Your task to perform on an android device: toggle notifications settings in the gmail app Image 0: 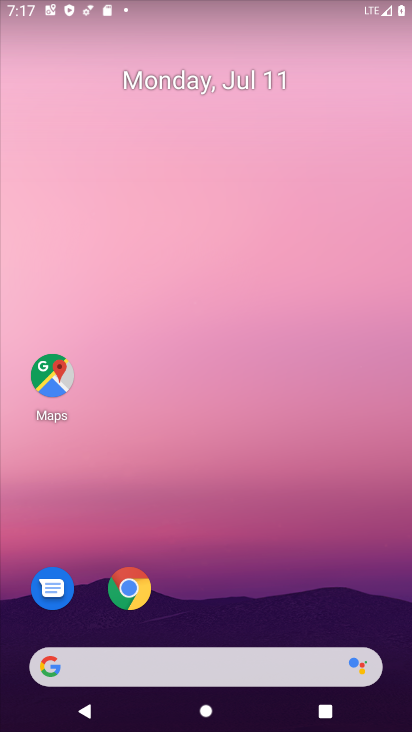
Step 0: drag from (389, 633) to (330, 6)
Your task to perform on an android device: toggle notifications settings in the gmail app Image 1: 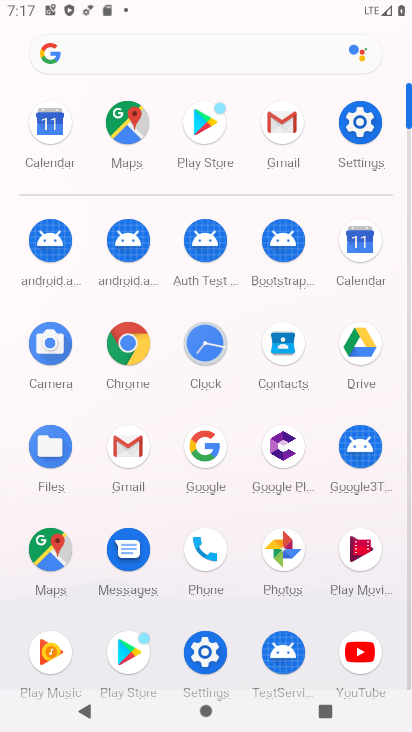
Step 1: click (107, 448)
Your task to perform on an android device: toggle notifications settings in the gmail app Image 2: 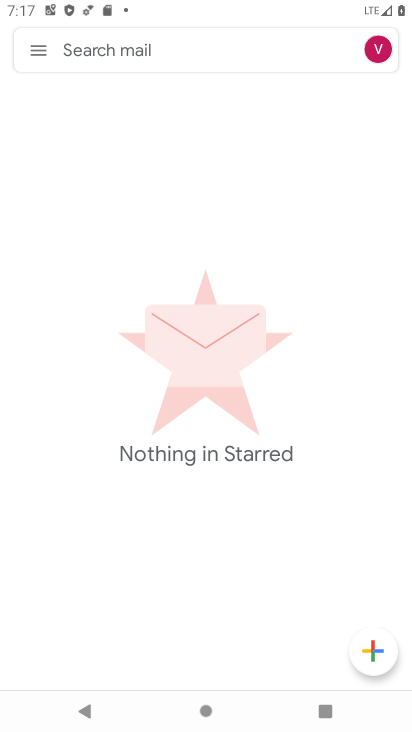
Step 2: click (40, 50)
Your task to perform on an android device: toggle notifications settings in the gmail app Image 3: 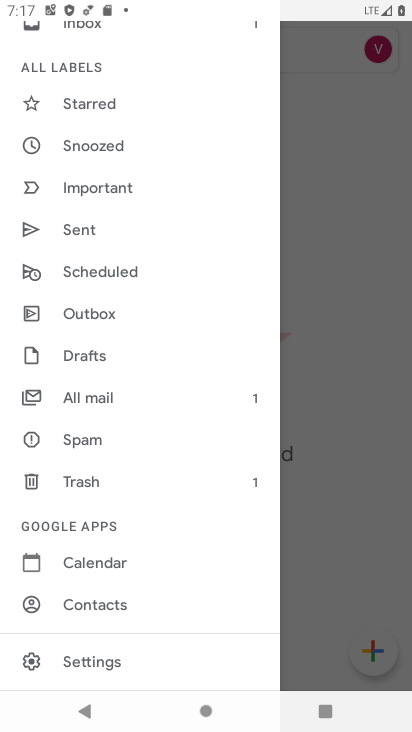
Step 3: click (91, 660)
Your task to perform on an android device: toggle notifications settings in the gmail app Image 4: 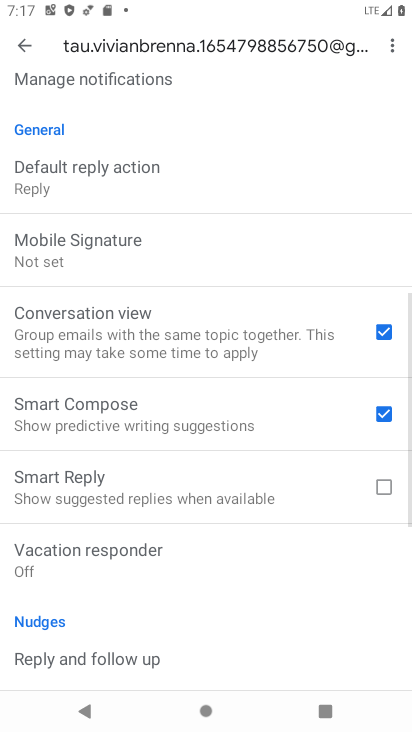
Step 4: drag from (110, 162) to (160, 711)
Your task to perform on an android device: toggle notifications settings in the gmail app Image 5: 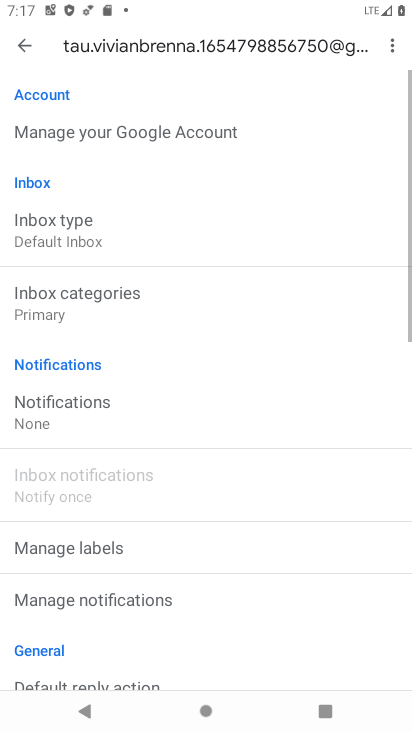
Step 5: drag from (156, 177) to (155, 483)
Your task to perform on an android device: toggle notifications settings in the gmail app Image 6: 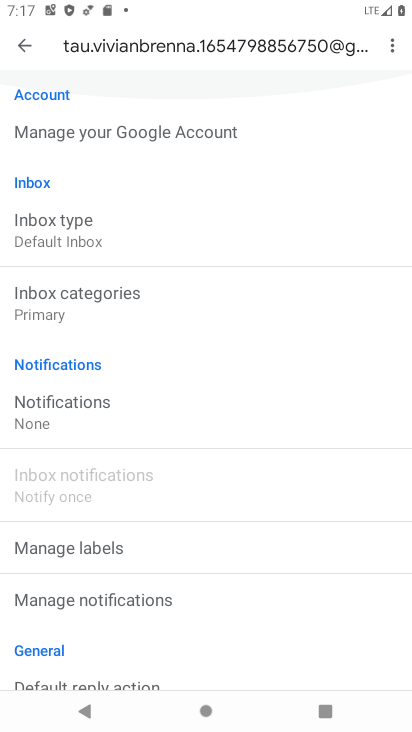
Step 6: click (71, 423)
Your task to perform on an android device: toggle notifications settings in the gmail app Image 7: 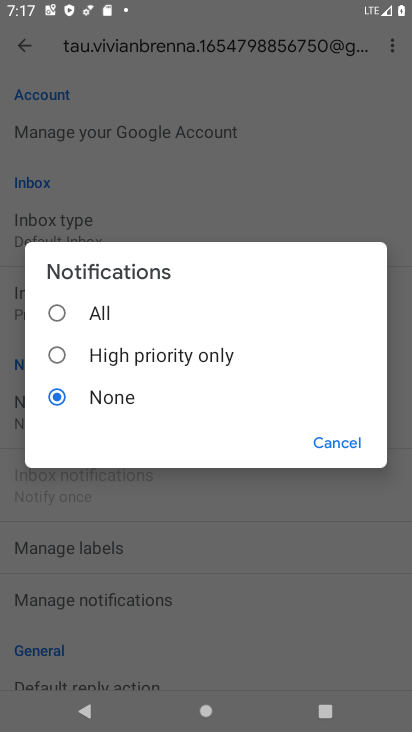
Step 7: click (95, 315)
Your task to perform on an android device: toggle notifications settings in the gmail app Image 8: 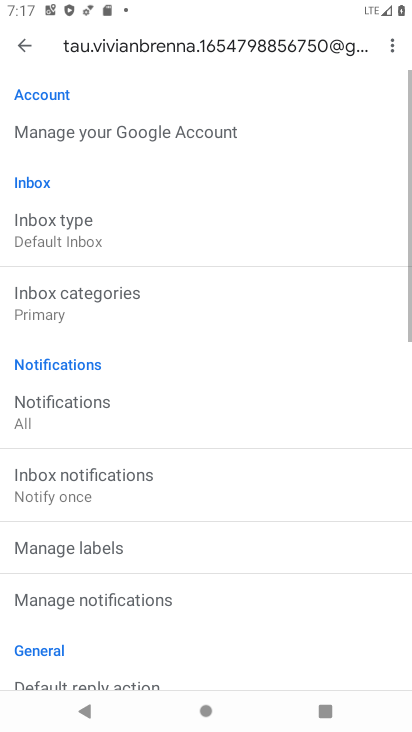
Step 8: task complete